Your task to perform on an android device: create a new album in the google photos Image 0: 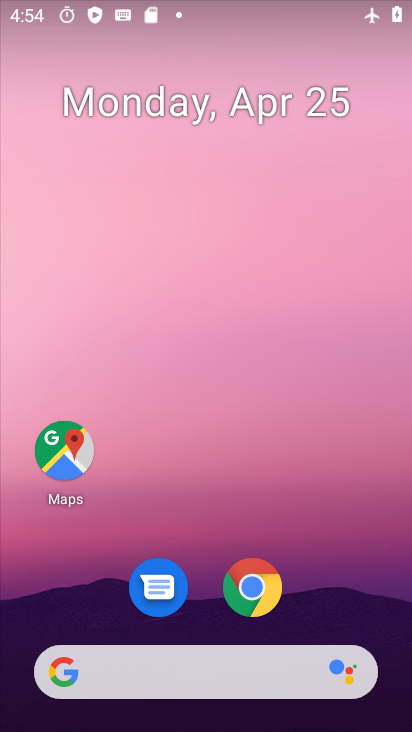
Step 0: drag from (338, 580) to (306, 202)
Your task to perform on an android device: create a new album in the google photos Image 1: 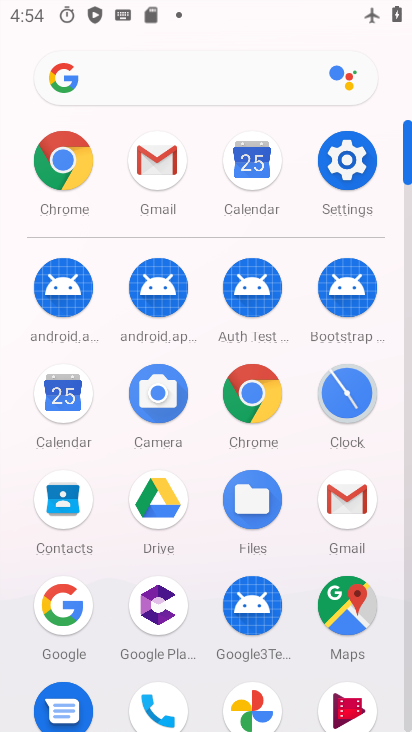
Step 1: click (251, 698)
Your task to perform on an android device: create a new album in the google photos Image 2: 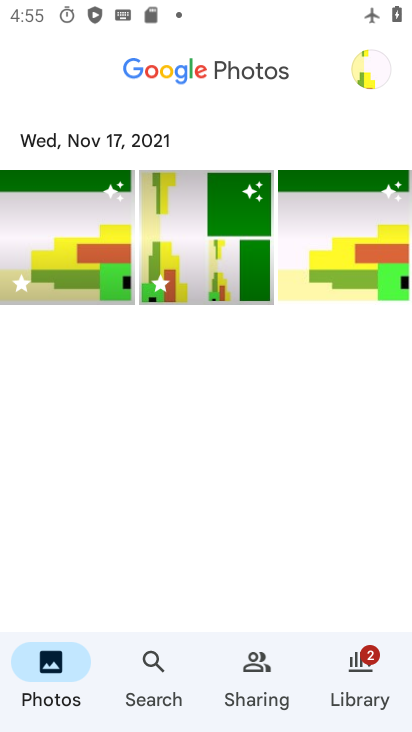
Step 2: click (364, 663)
Your task to perform on an android device: create a new album in the google photos Image 3: 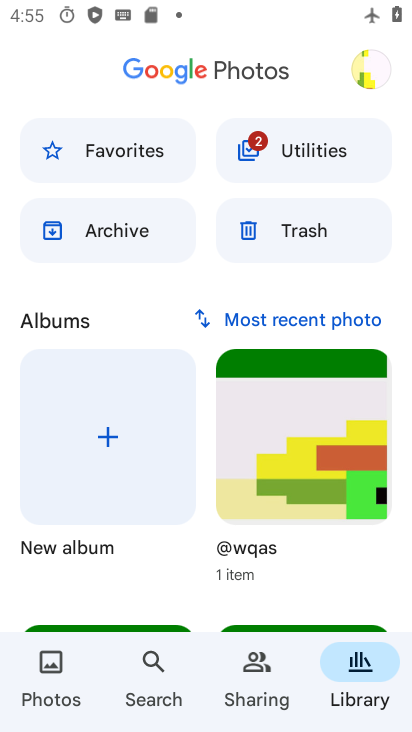
Step 3: click (96, 451)
Your task to perform on an android device: create a new album in the google photos Image 4: 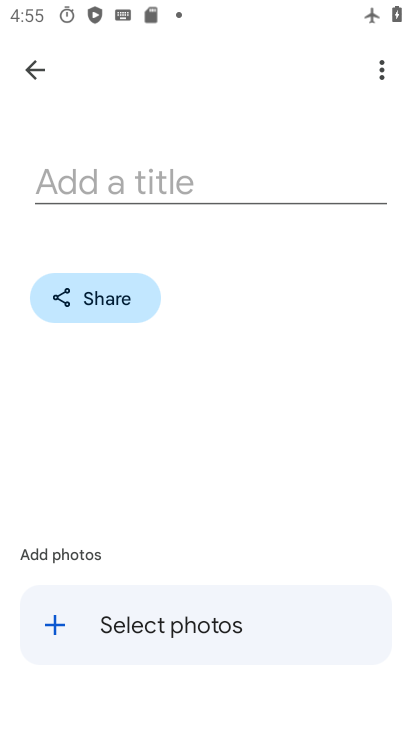
Step 4: click (145, 184)
Your task to perform on an android device: create a new album in the google photos Image 5: 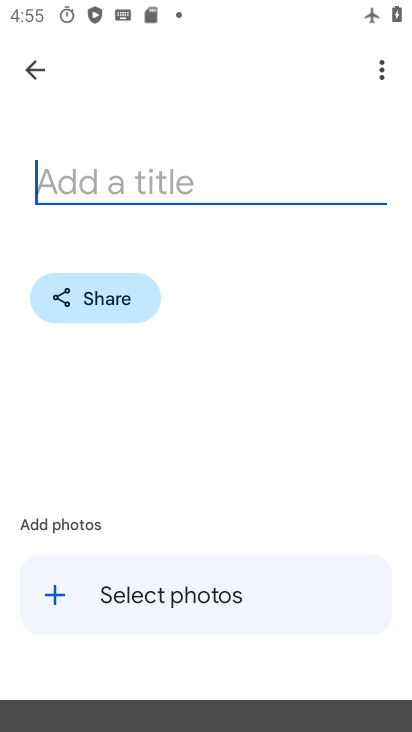
Step 5: click (117, 623)
Your task to perform on an android device: create a new album in the google photos Image 6: 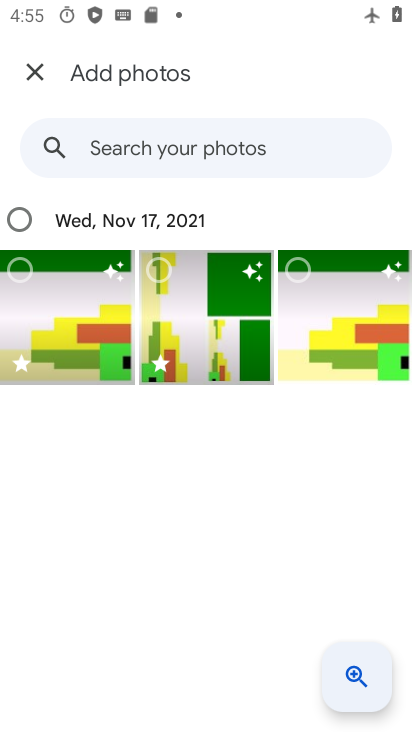
Step 6: click (19, 262)
Your task to perform on an android device: create a new album in the google photos Image 7: 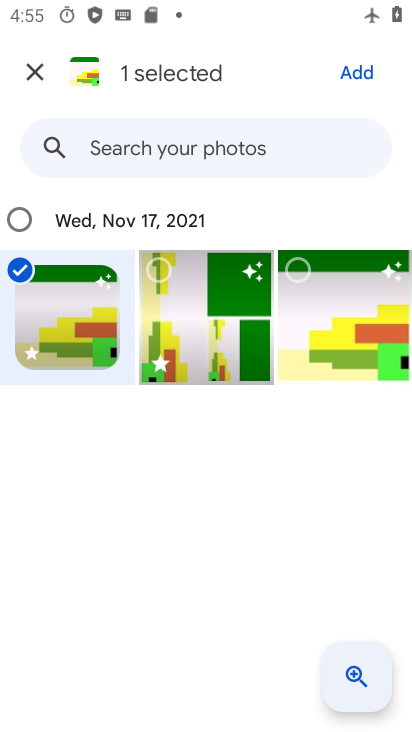
Step 7: click (355, 67)
Your task to perform on an android device: create a new album in the google photos Image 8: 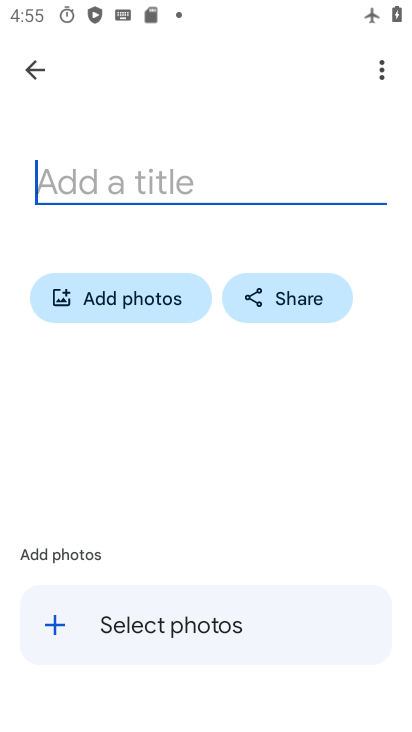
Step 8: click (230, 182)
Your task to perform on an android device: create a new album in the google photos Image 9: 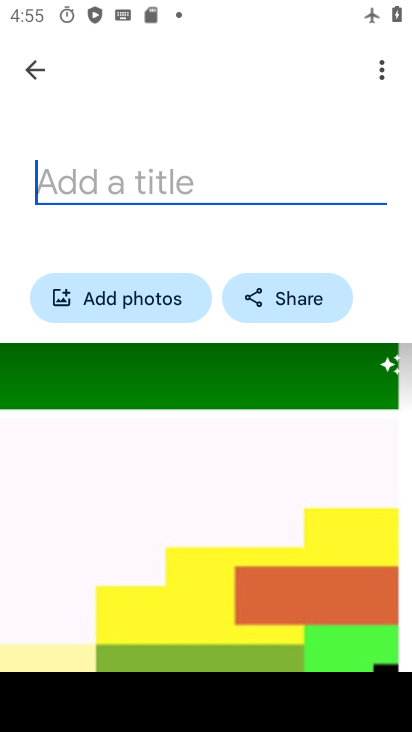
Step 9: type "bv b"
Your task to perform on an android device: create a new album in the google photos Image 10: 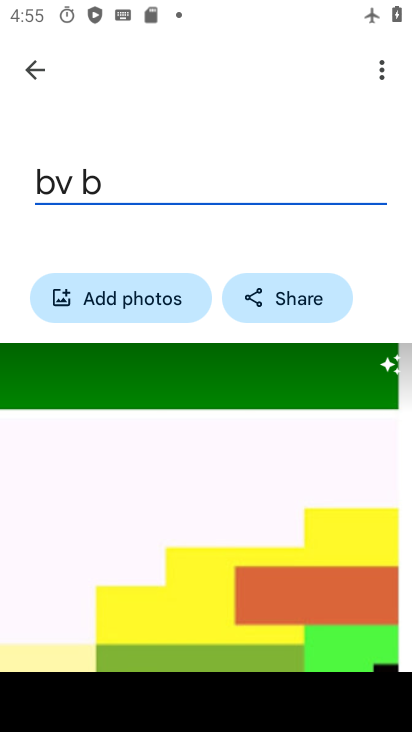
Step 10: press enter
Your task to perform on an android device: create a new album in the google photos Image 11: 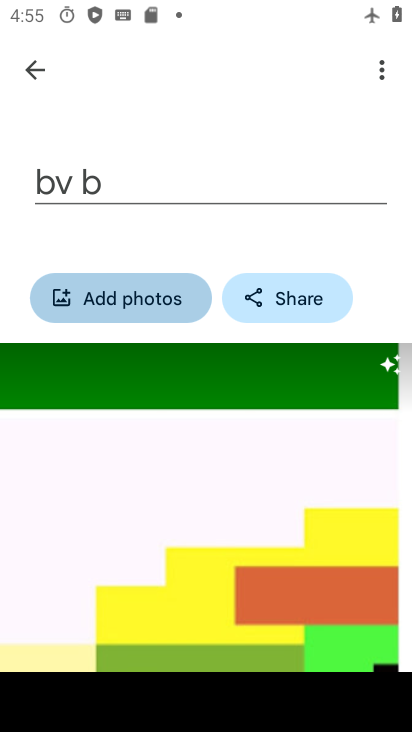
Step 11: press enter
Your task to perform on an android device: create a new album in the google photos Image 12: 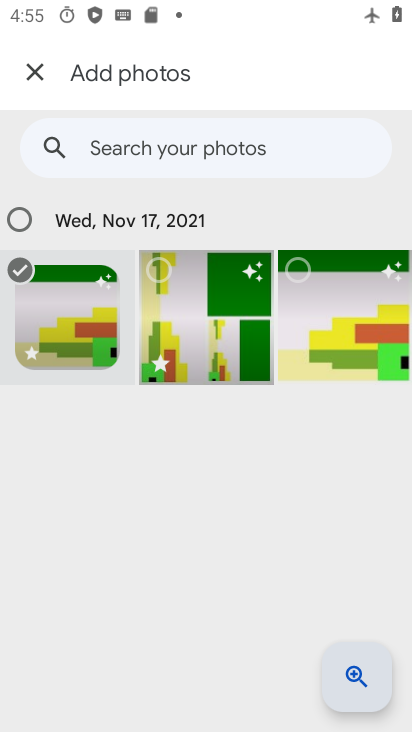
Step 12: click (34, 65)
Your task to perform on an android device: create a new album in the google photos Image 13: 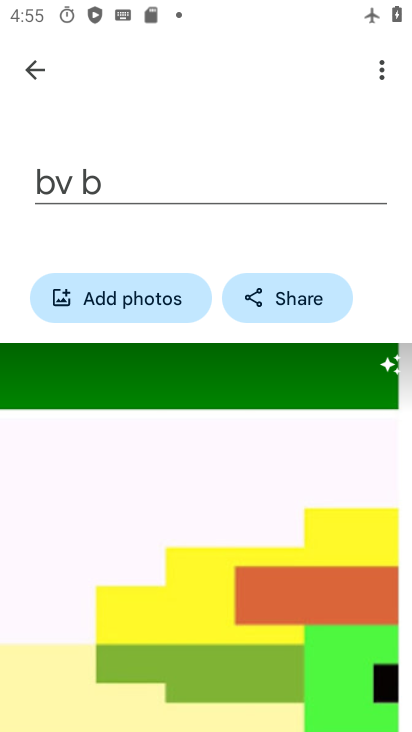
Step 13: click (250, 462)
Your task to perform on an android device: create a new album in the google photos Image 14: 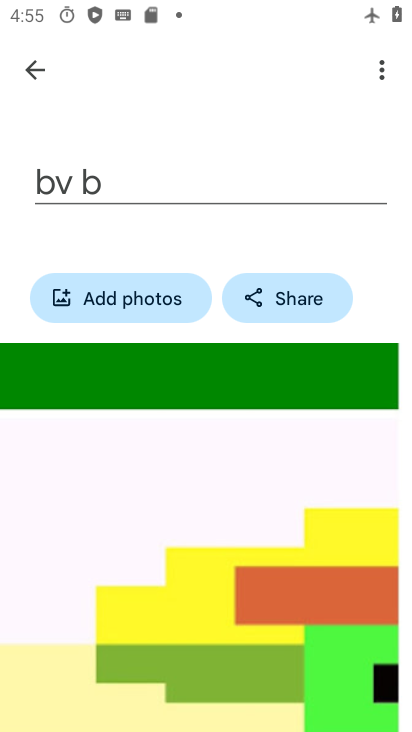
Step 14: click (380, 65)
Your task to perform on an android device: create a new album in the google photos Image 15: 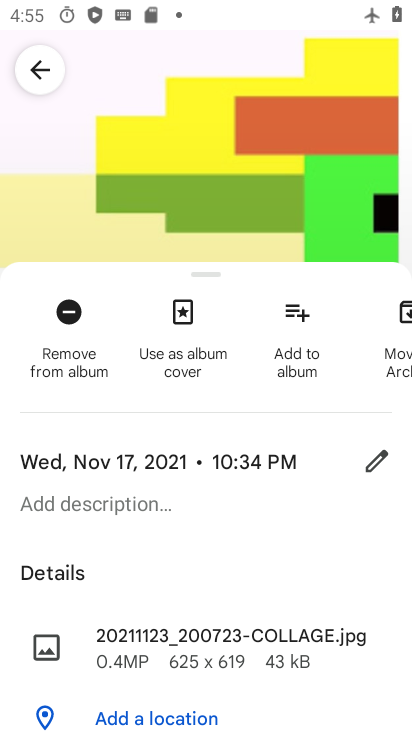
Step 15: task complete